Your task to perform on an android device: open app "The Home Depot" (install if not already installed) and enter user name: "taproot@icloud.com" and password: "executions" Image 0: 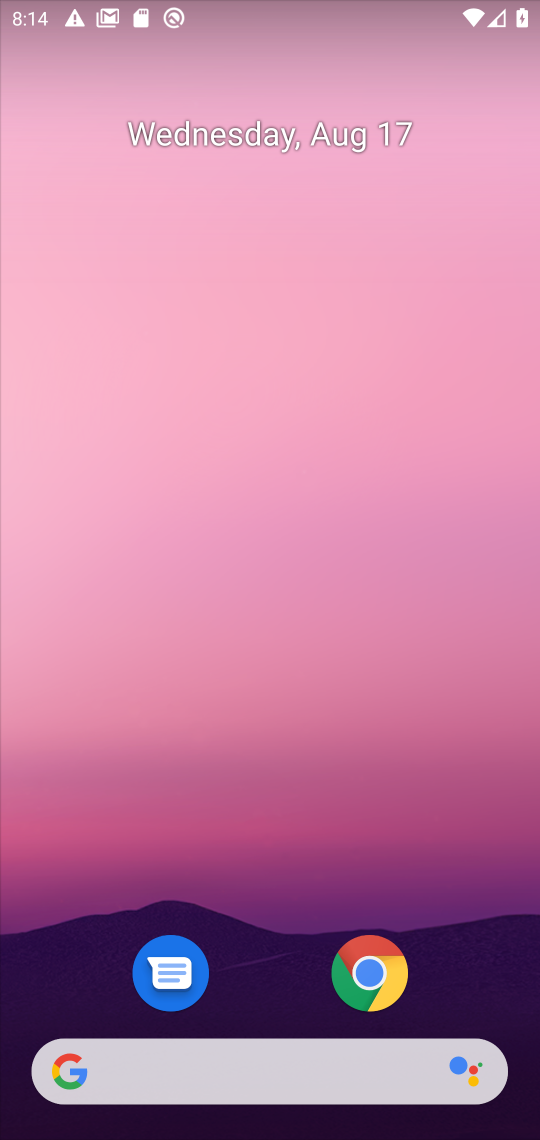
Step 0: click (375, 985)
Your task to perform on an android device: open app "The Home Depot" (install if not already installed) and enter user name: "taproot@icloud.com" and password: "executions" Image 1: 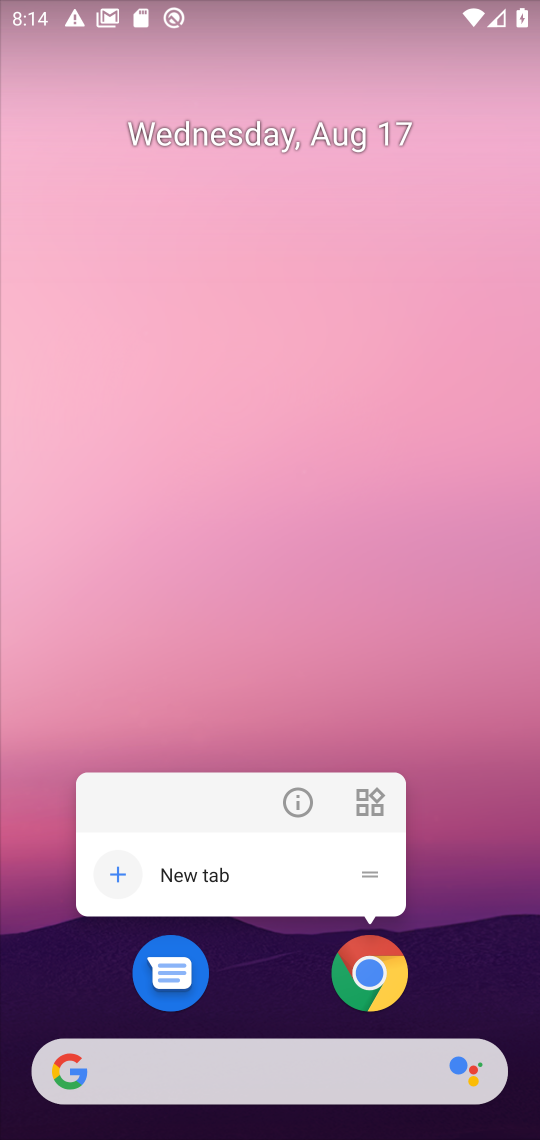
Step 1: click (373, 993)
Your task to perform on an android device: open app "The Home Depot" (install if not already installed) and enter user name: "taproot@icloud.com" and password: "executions" Image 2: 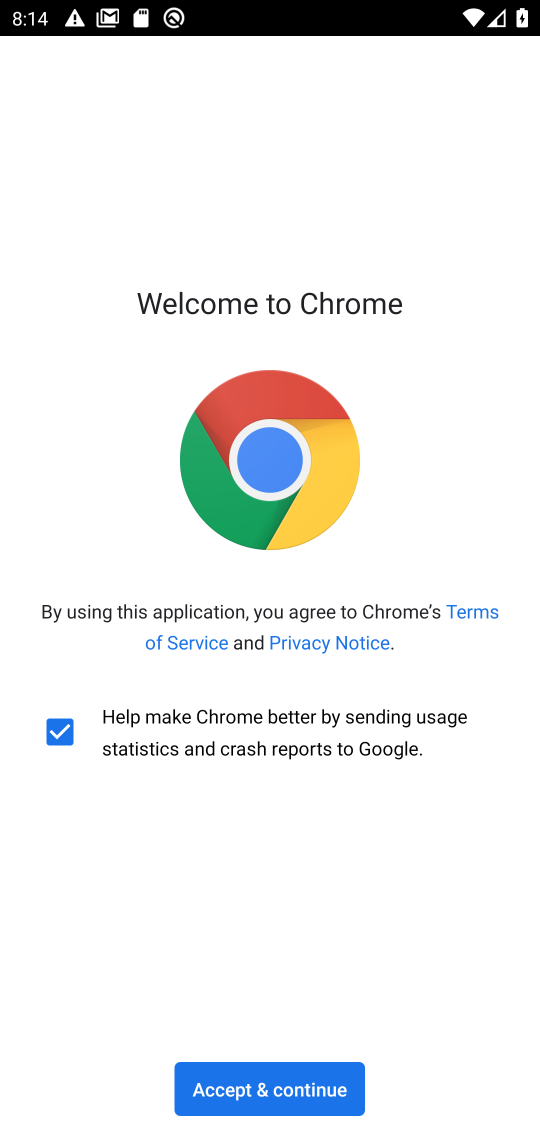
Step 2: click (323, 1096)
Your task to perform on an android device: open app "The Home Depot" (install if not already installed) and enter user name: "taproot@icloud.com" and password: "executions" Image 3: 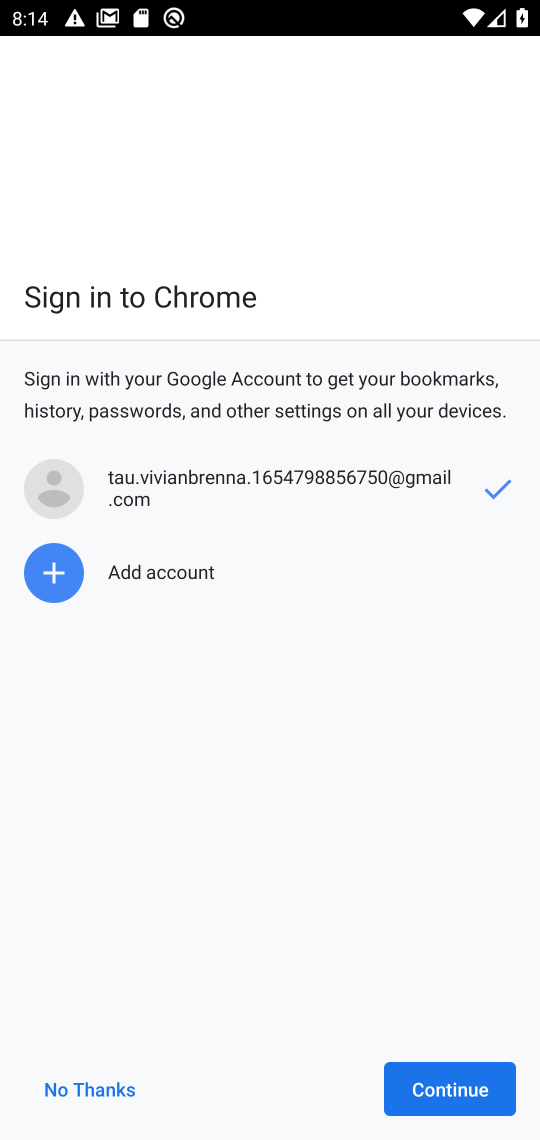
Step 3: click (452, 1093)
Your task to perform on an android device: open app "The Home Depot" (install if not already installed) and enter user name: "taproot@icloud.com" and password: "executions" Image 4: 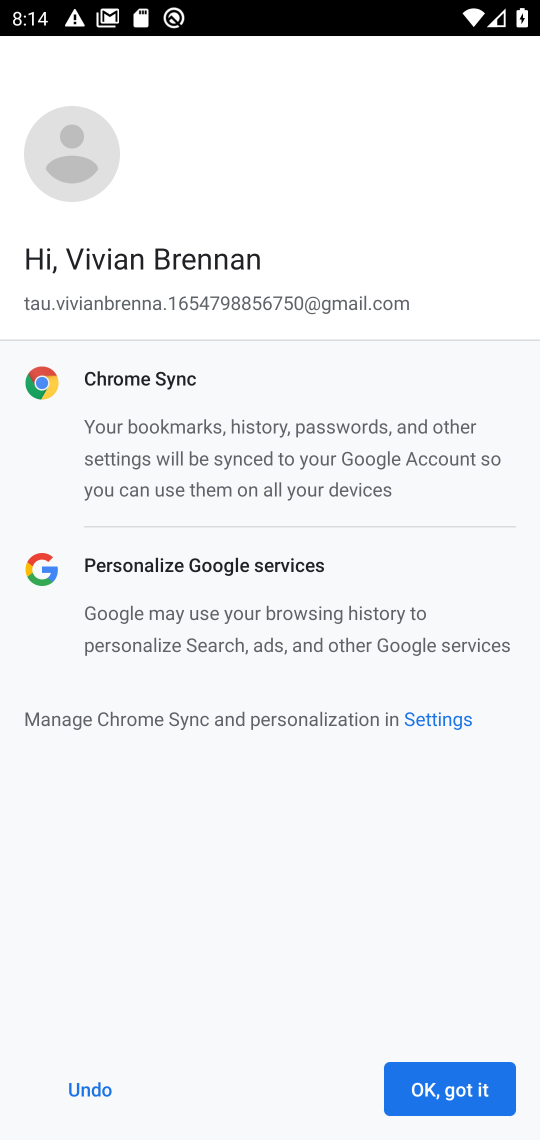
Step 4: click (452, 1093)
Your task to perform on an android device: open app "The Home Depot" (install if not already installed) and enter user name: "taproot@icloud.com" and password: "executions" Image 5: 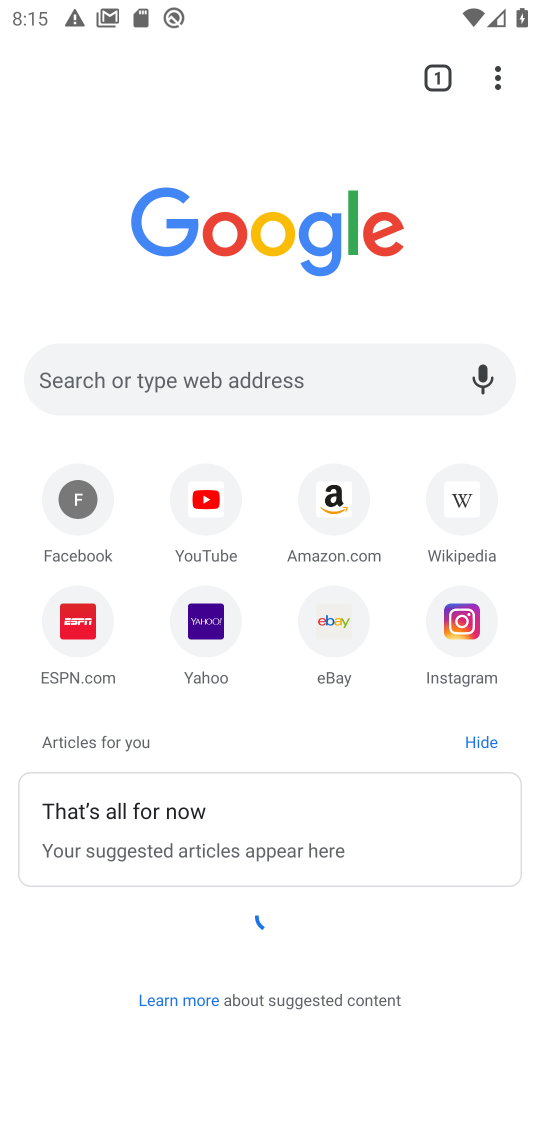
Step 5: click (277, 397)
Your task to perform on an android device: open app "The Home Depot" (install if not already installed) and enter user name: "taproot@icloud.com" and password: "executions" Image 6: 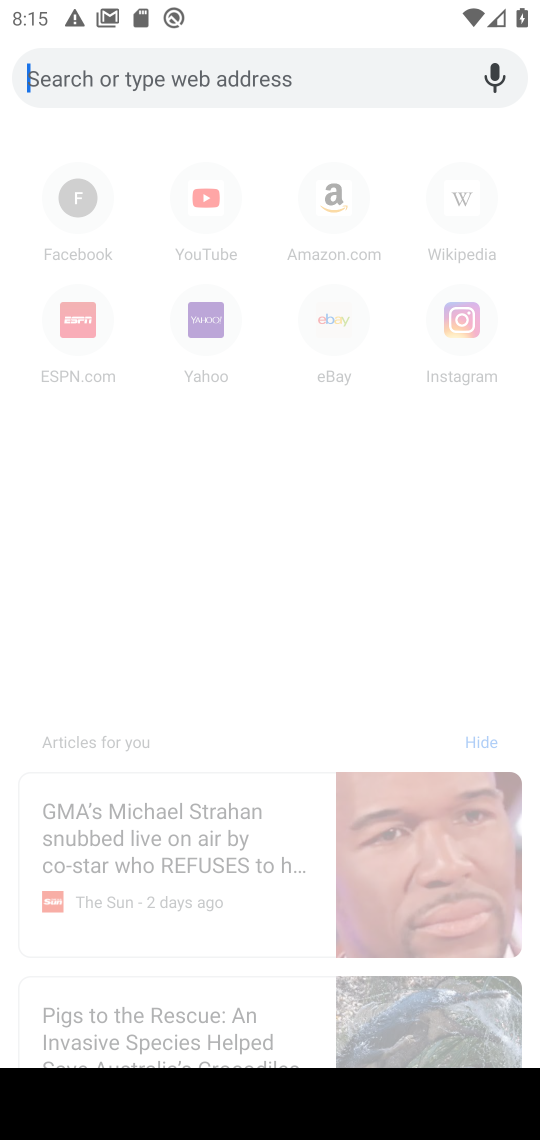
Step 6: type "The Home Depot"
Your task to perform on an android device: open app "The Home Depot" (install if not already installed) and enter user name: "taproot@icloud.com" and password: "executions" Image 7: 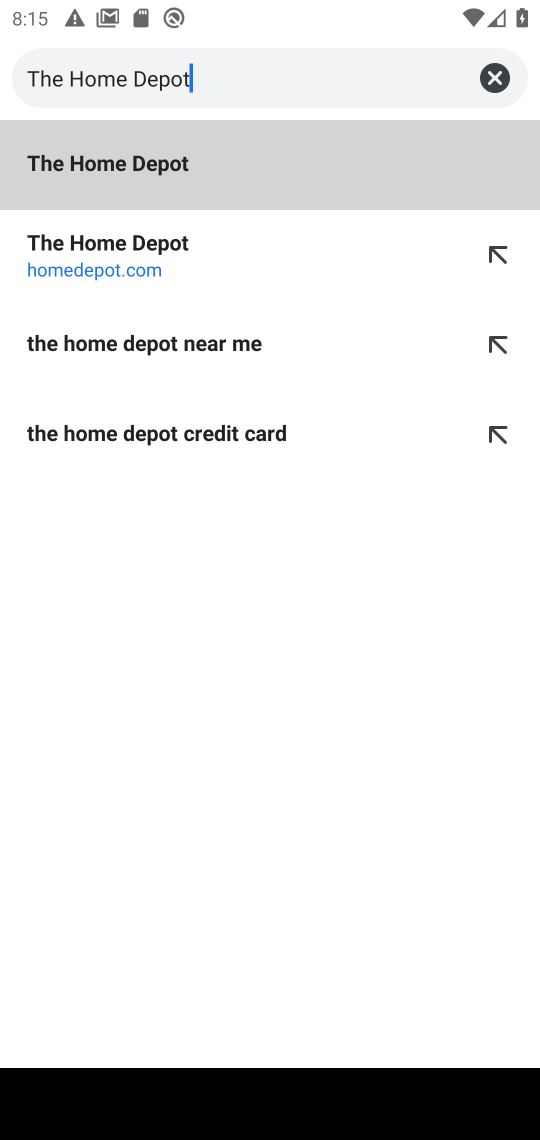
Step 7: click (207, 191)
Your task to perform on an android device: open app "The Home Depot" (install if not already installed) and enter user name: "taproot@icloud.com" and password: "executions" Image 8: 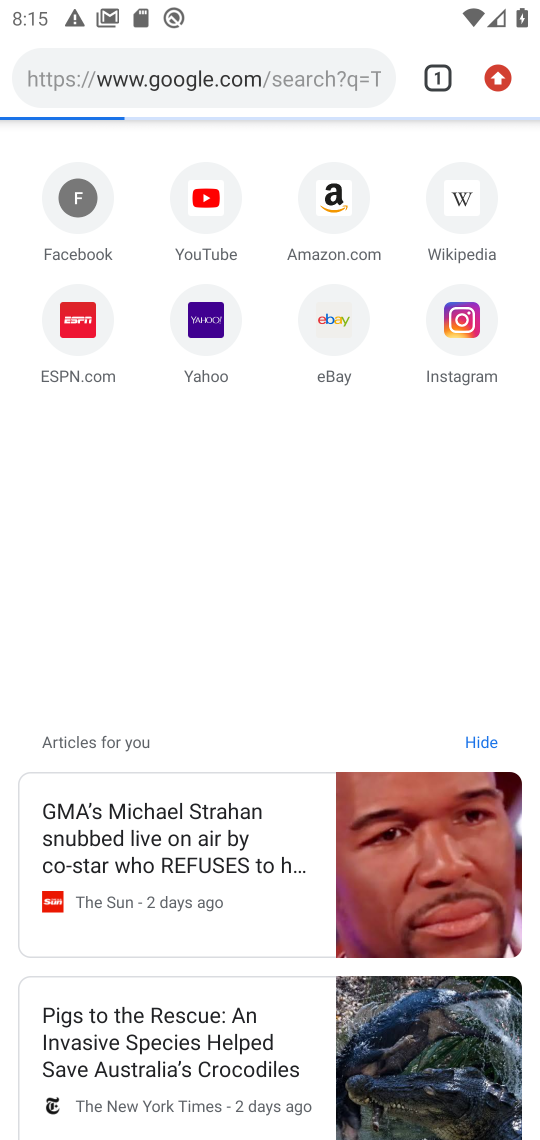
Step 8: press home button
Your task to perform on an android device: open app "The Home Depot" (install if not already installed) and enter user name: "taproot@icloud.com" and password: "executions" Image 9: 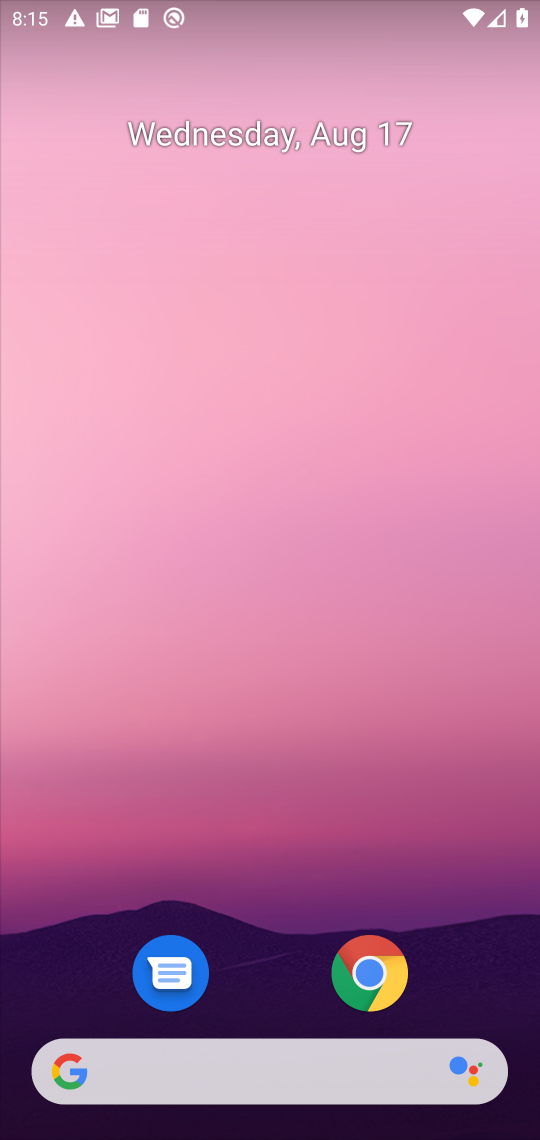
Step 9: drag from (290, 1053) to (351, 137)
Your task to perform on an android device: open app "The Home Depot" (install if not already installed) and enter user name: "taproot@icloud.com" and password: "executions" Image 10: 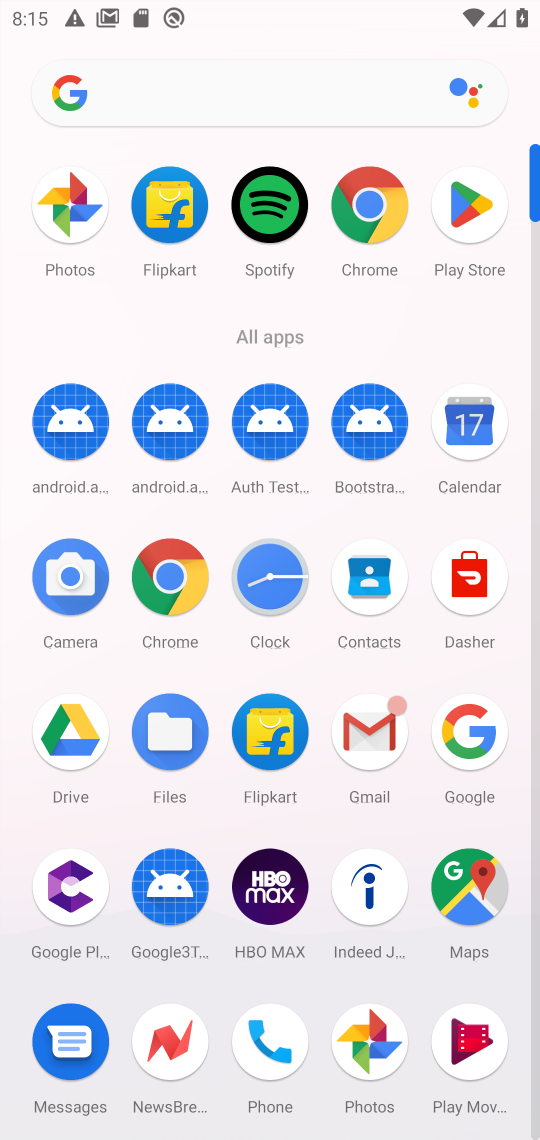
Step 10: click (509, 212)
Your task to perform on an android device: open app "The Home Depot" (install if not already installed) and enter user name: "taproot@icloud.com" and password: "executions" Image 11: 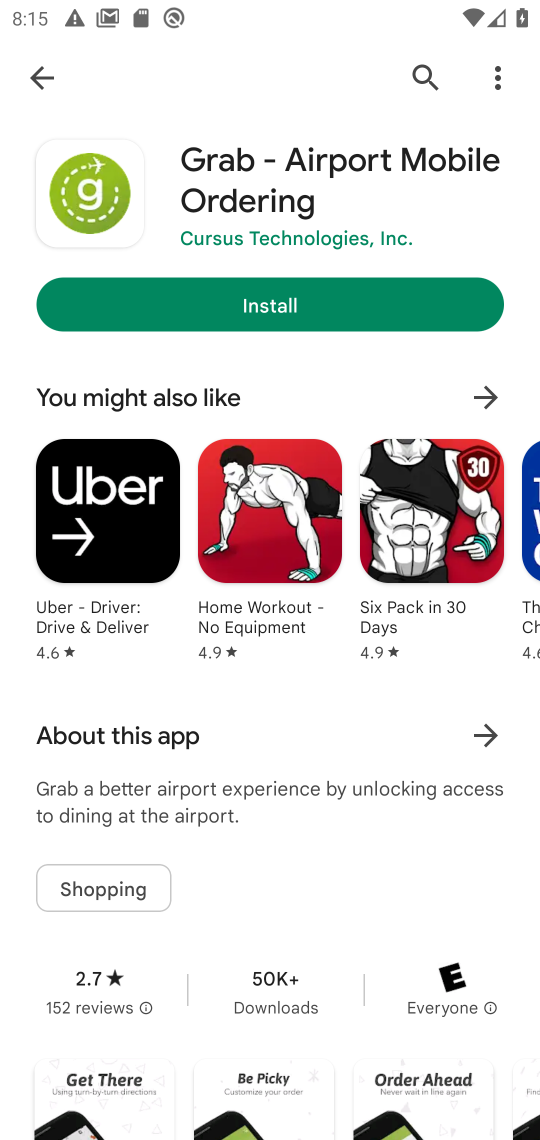
Step 11: click (51, 86)
Your task to perform on an android device: open app "The Home Depot" (install if not already installed) and enter user name: "taproot@icloud.com" and password: "executions" Image 12: 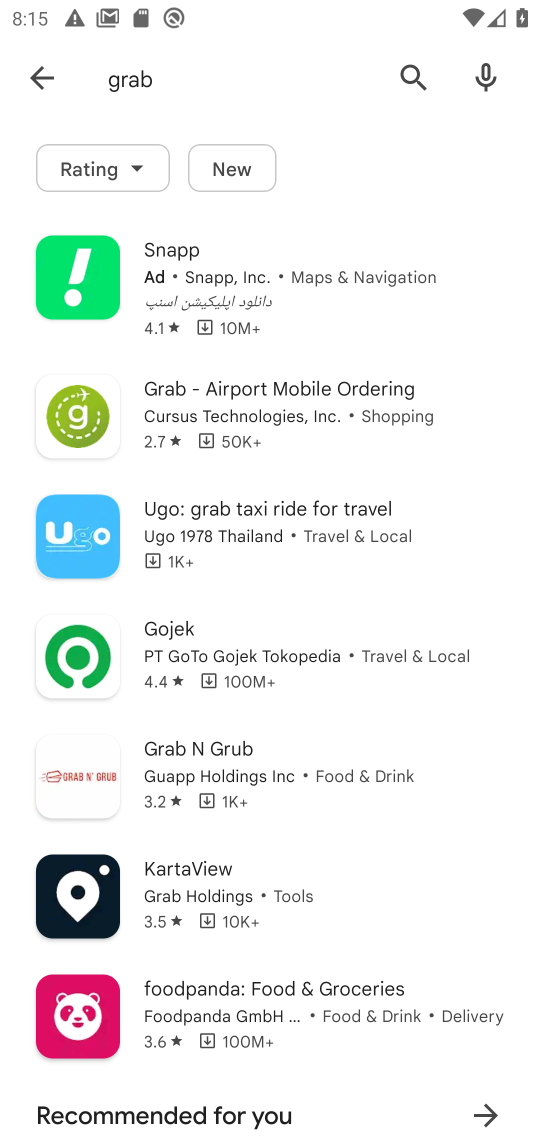
Step 12: click (51, 86)
Your task to perform on an android device: open app "The Home Depot" (install if not already installed) and enter user name: "taproot@icloud.com" and password: "executions" Image 13: 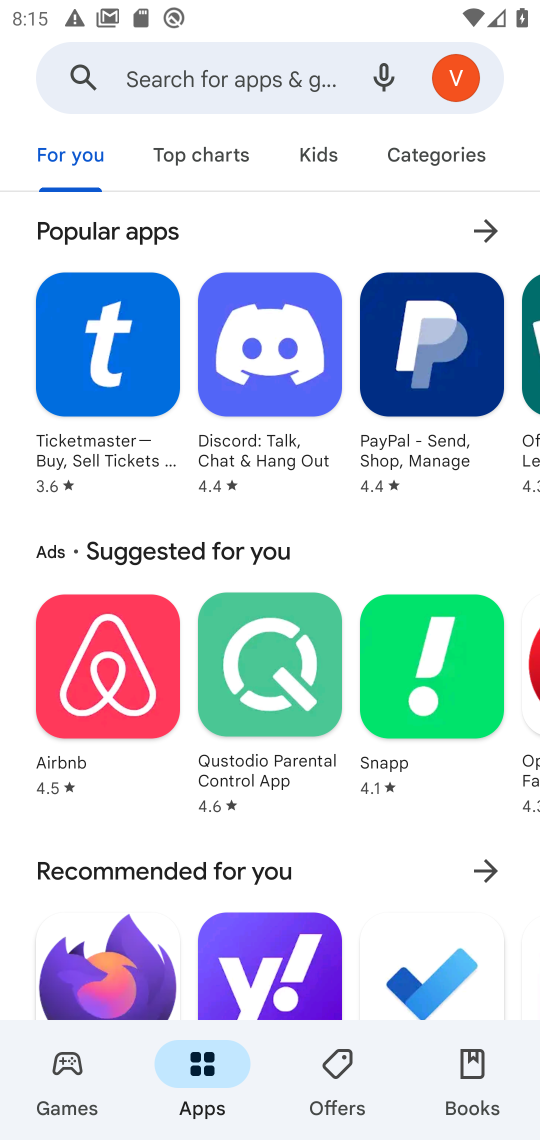
Step 13: click (182, 71)
Your task to perform on an android device: open app "The Home Depot" (install if not already installed) and enter user name: "taproot@icloud.com" and password: "executions" Image 14: 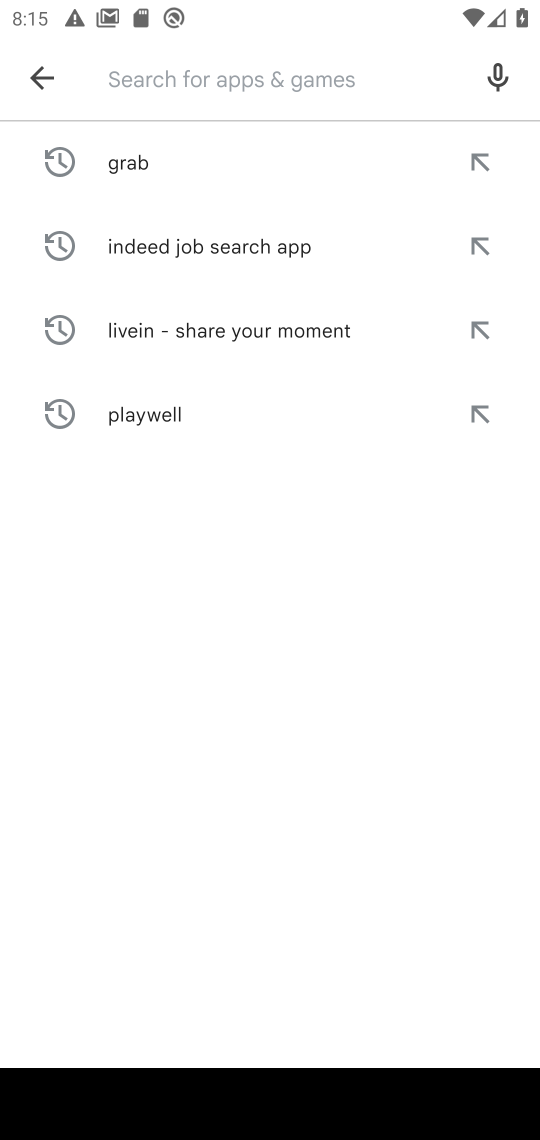
Step 14: type "The Home Depot"
Your task to perform on an android device: open app "The Home Depot" (install if not already installed) and enter user name: "taproot@icloud.com" and password: "executions" Image 15: 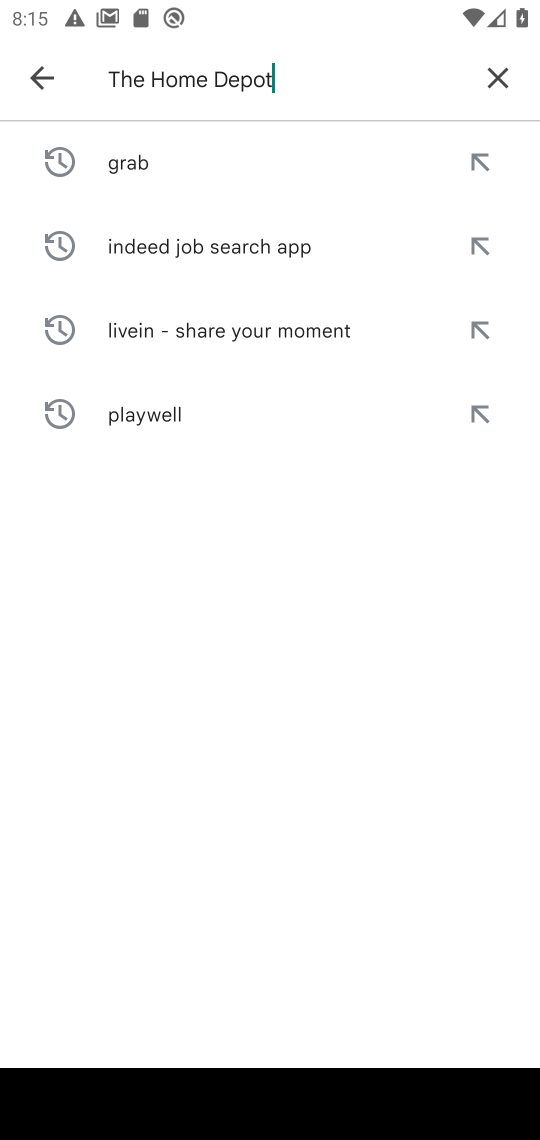
Step 15: type ""
Your task to perform on an android device: open app "The Home Depot" (install if not already installed) and enter user name: "taproot@icloud.com" and password: "executions" Image 16: 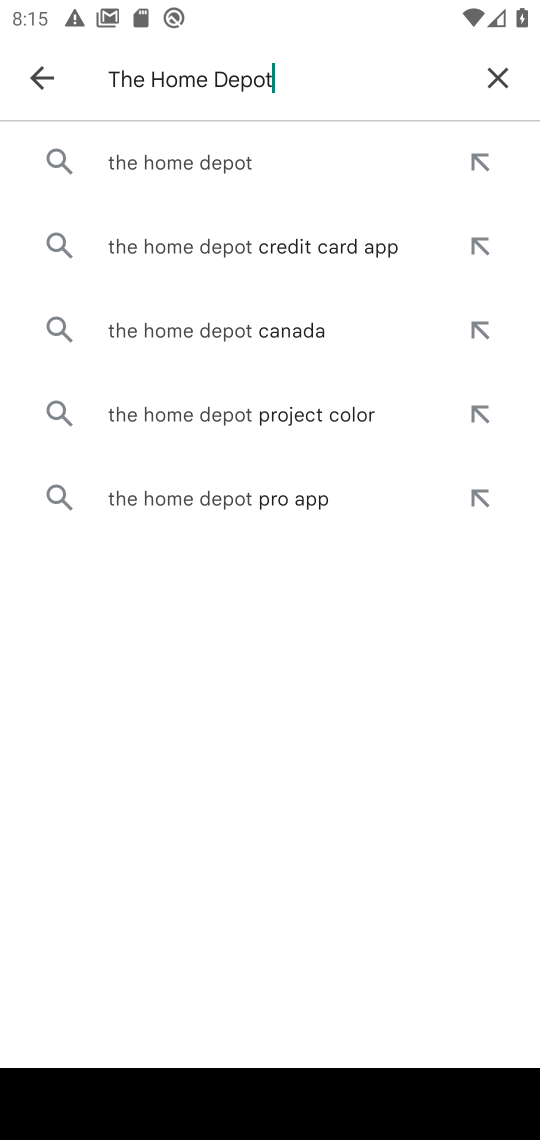
Step 16: click (257, 168)
Your task to perform on an android device: open app "The Home Depot" (install if not already installed) and enter user name: "taproot@icloud.com" and password: "executions" Image 17: 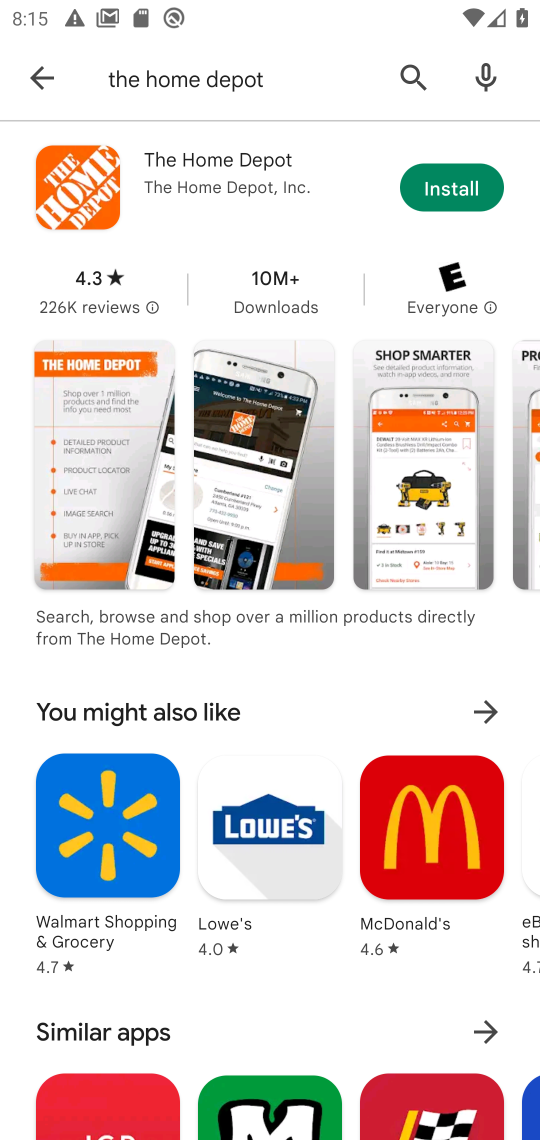
Step 17: click (463, 184)
Your task to perform on an android device: open app "The Home Depot" (install if not already installed) and enter user name: "taproot@icloud.com" and password: "executions" Image 18: 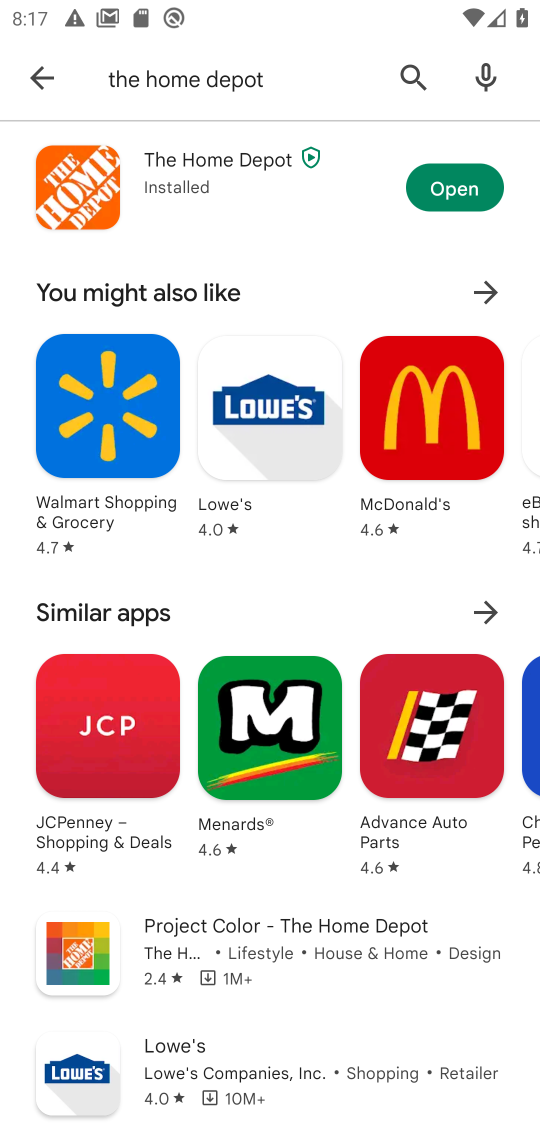
Step 18: click (459, 196)
Your task to perform on an android device: open app "The Home Depot" (install if not already installed) and enter user name: "taproot@icloud.com" and password: "executions" Image 19: 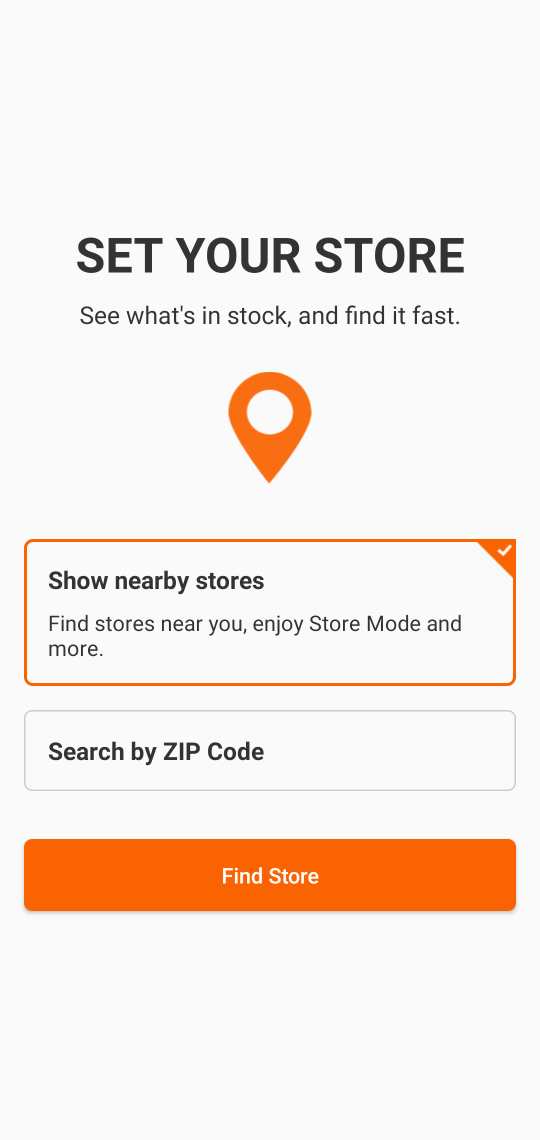
Step 19: task complete